Your task to perform on an android device: open chrome privacy settings Image 0: 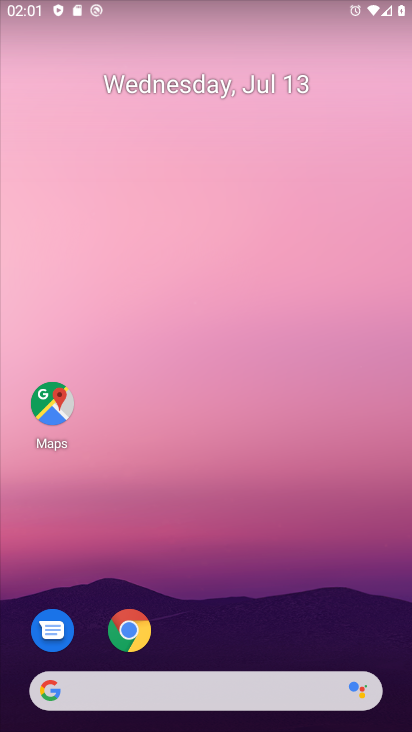
Step 0: click (127, 631)
Your task to perform on an android device: open chrome privacy settings Image 1: 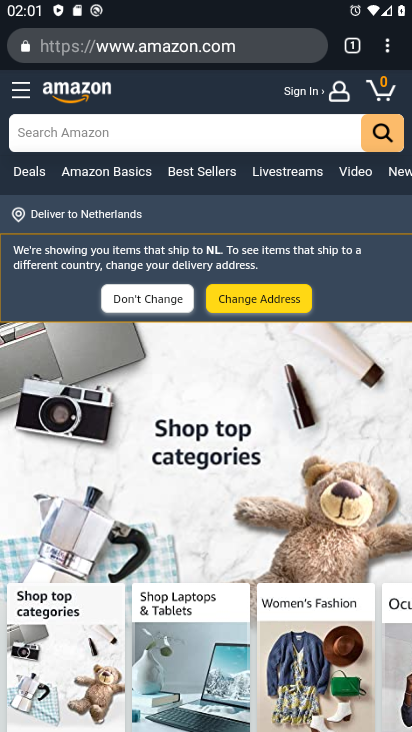
Step 1: click (382, 49)
Your task to perform on an android device: open chrome privacy settings Image 2: 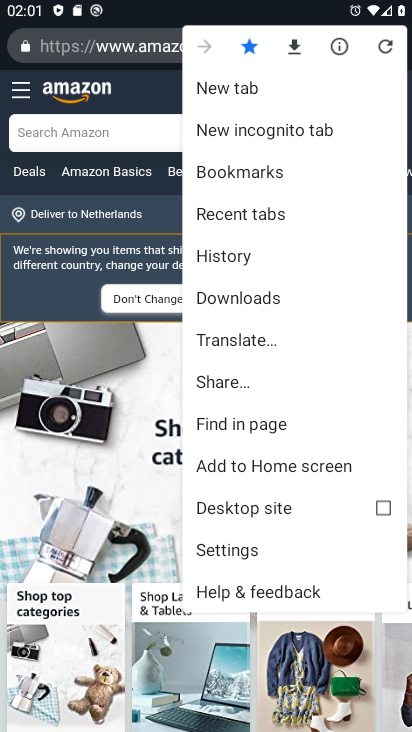
Step 2: click (247, 552)
Your task to perform on an android device: open chrome privacy settings Image 3: 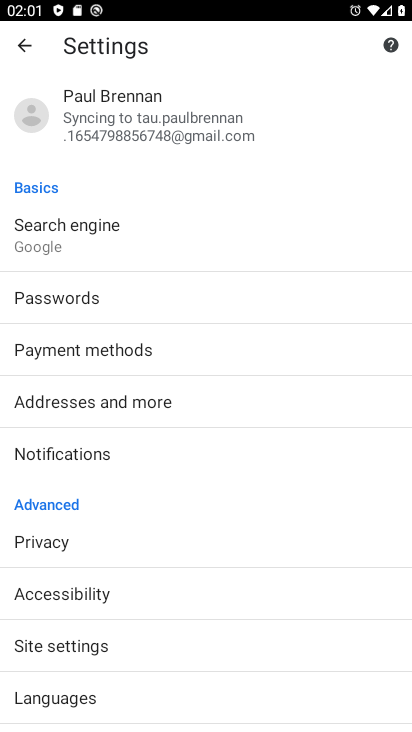
Step 3: click (74, 546)
Your task to perform on an android device: open chrome privacy settings Image 4: 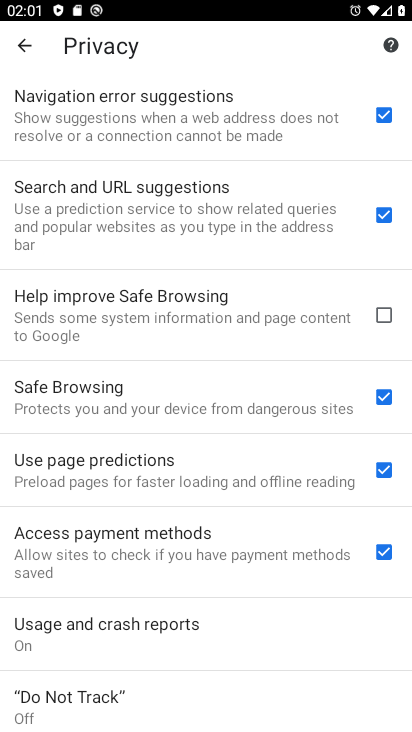
Step 4: task complete